Your task to perform on an android device: turn on javascript in the chrome app Image 0: 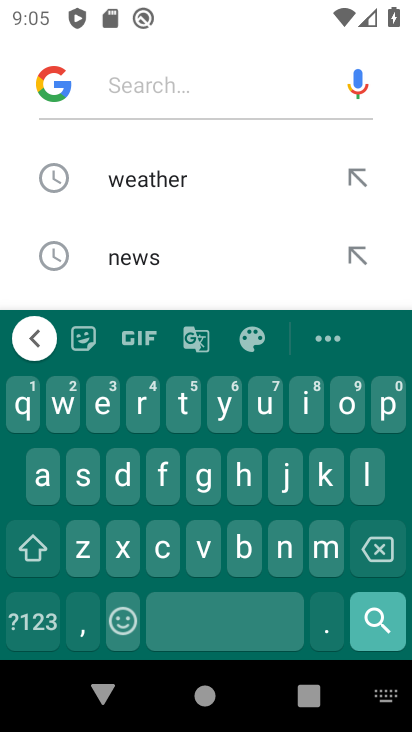
Step 0: press home button
Your task to perform on an android device: turn on javascript in the chrome app Image 1: 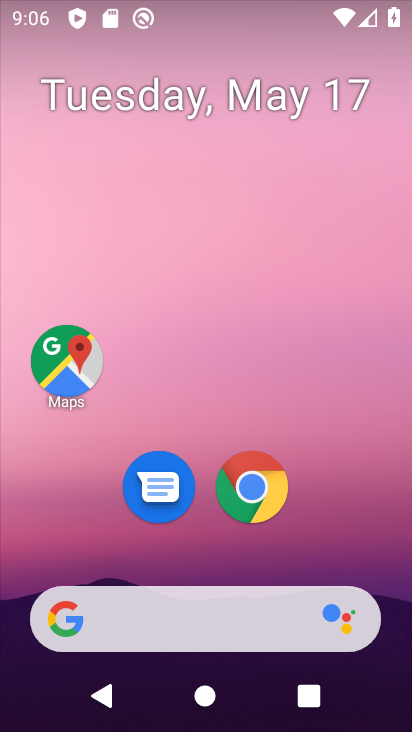
Step 1: drag from (260, 652) to (237, 90)
Your task to perform on an android device: turn on javascript in the chrome app Image 2: 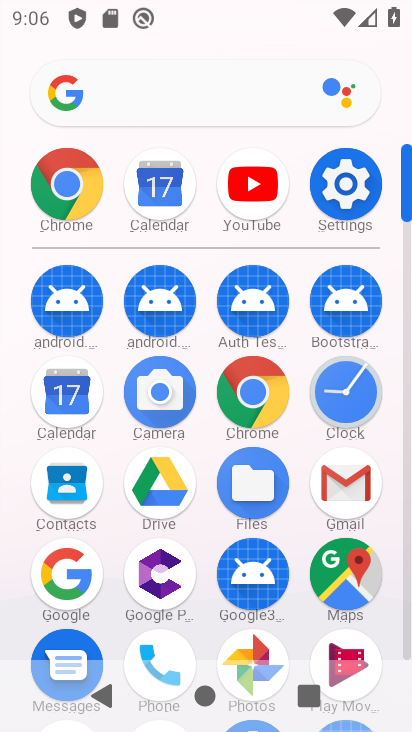
Step 2: click (77, 198)
Your task to perform on an android device: turn on javascript in the chrome app Image 3: 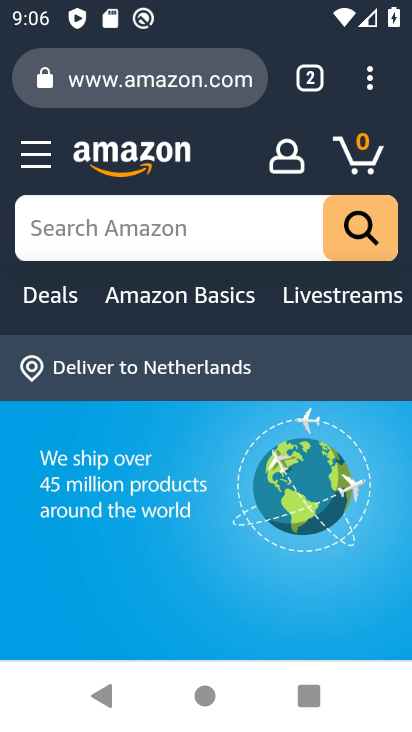
Step 3: click (358, 88)
Your task to perform on an android device: turn on javascript in the chrome app Image 4: 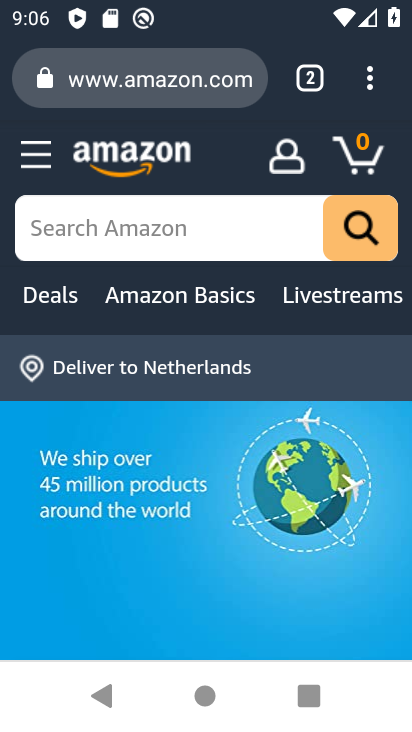
Step 4: click (358, 101)
Your task to perform on an android device: turn on javascript in the chrome app Image 5: 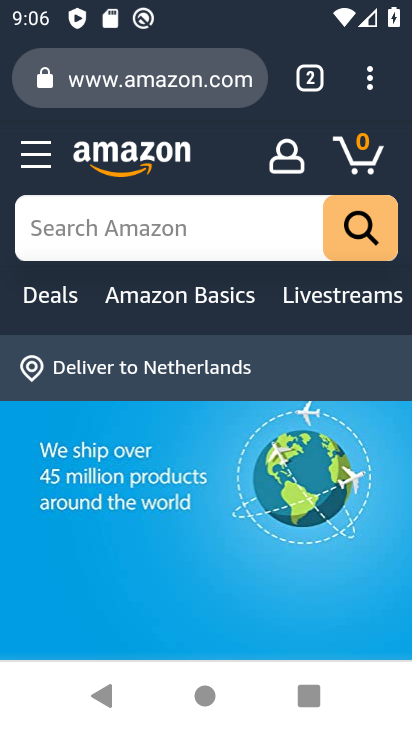
Step 5: click (352, 103)
Your task to perform on an android device: turn on javascript in the chrome app Image 6: 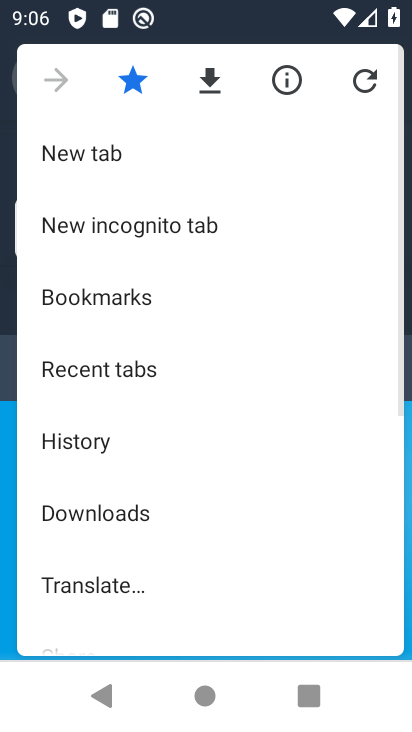
Step 6: drag from (198, 579) to (214, 277)
Your task to perform on an android device: turn on javascript in the chrome app Image 7: 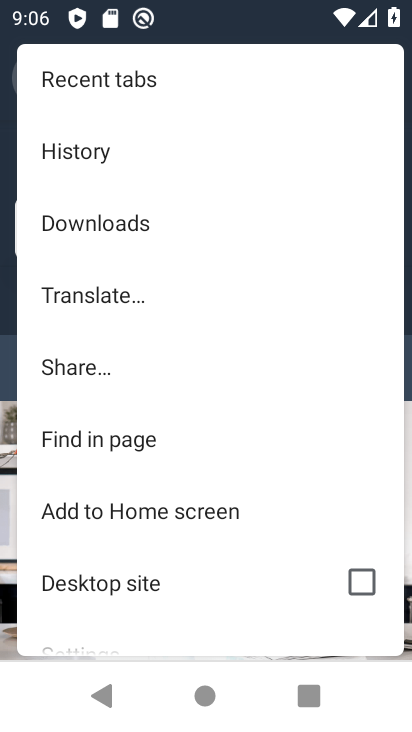
Step 7: drag from (142, 561) to (195, 283)
Your task to perform on an android device: turn on javascript in the chrome app Image 8: 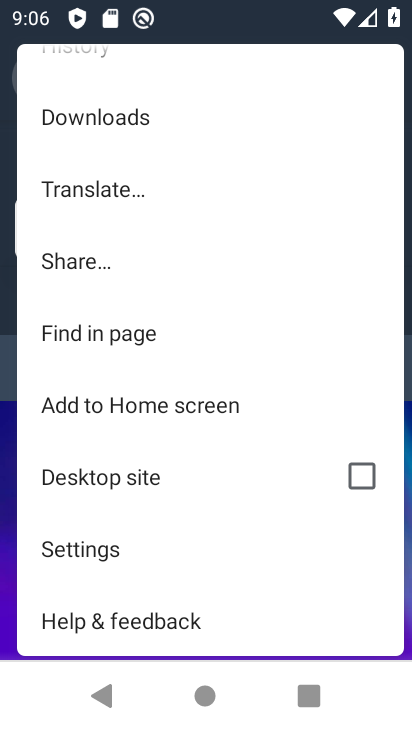
Step 8: click (92, 554)
Your task to perform on an android device: turn on javascript in the chrome app Image 9: 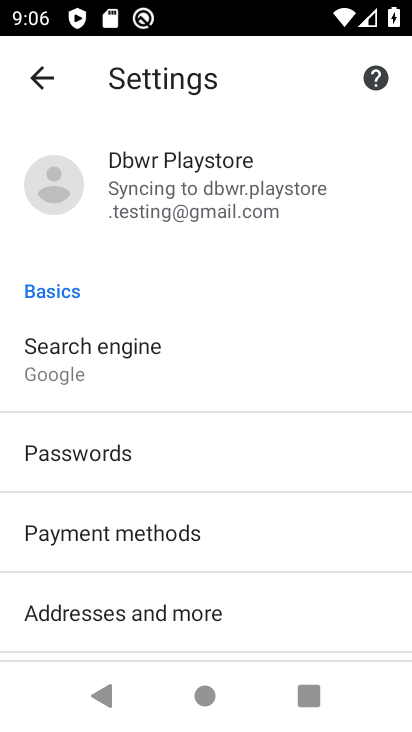
Step 9: drag from (171, 610) to (132, 359)
Your task to perform on an android device: turn on javascript in the chrome app Image 10: 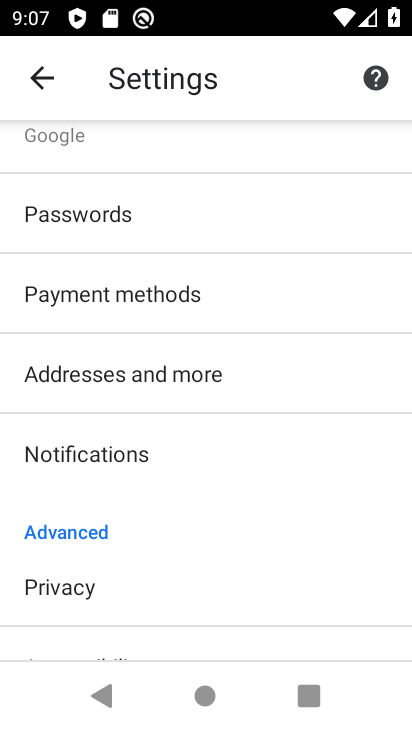
Step 10: drag from (155, 560) to (213, 305)
Your task to perform on an android device: turn on javascript in the chrome app Image 11: 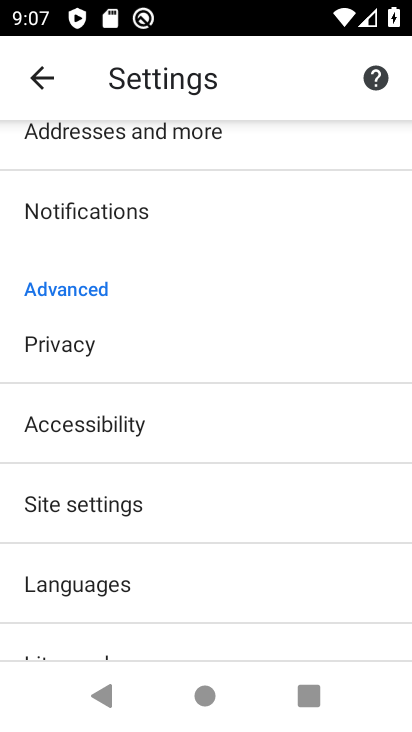
Step 11: click (129, 510)
Your task to perform on an android device: turn on javascript in the chrome app Image 12: 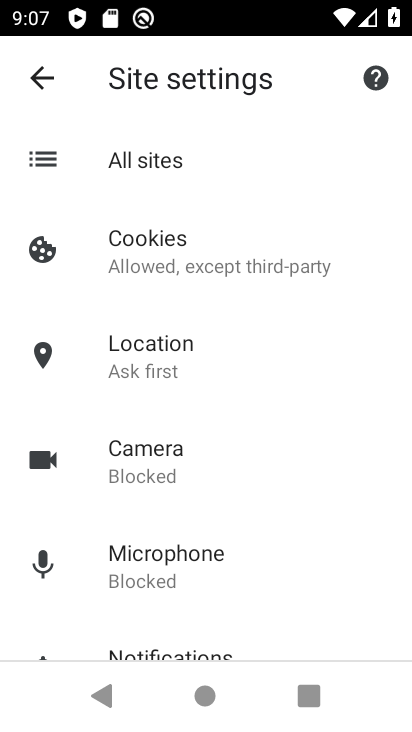
Step 12: drag from (193, 581) to (197, 309)
Your task to perform on an android device: turn on javascript in the chrome app Image 13: 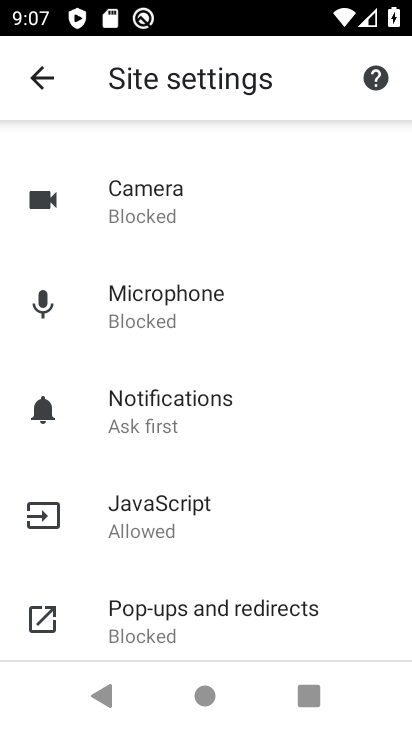
Step 13: click (154, 505)
Your task to perform on an android device: turn on javascript in the chrome app Image 14: 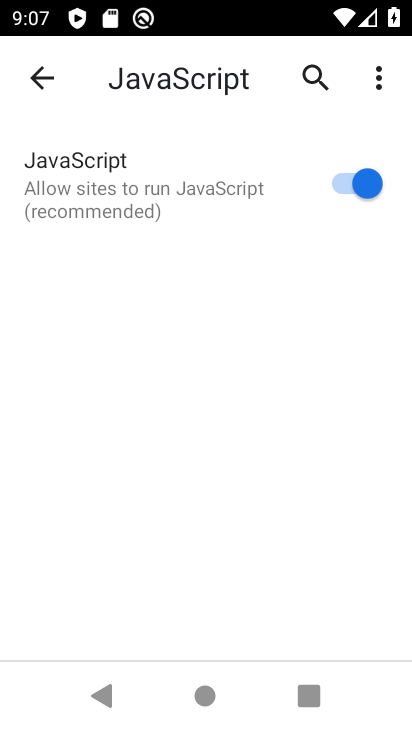
Step 14: task complete